Your task to perform on an android device: manage bookmarks in the chrome app Image 0: 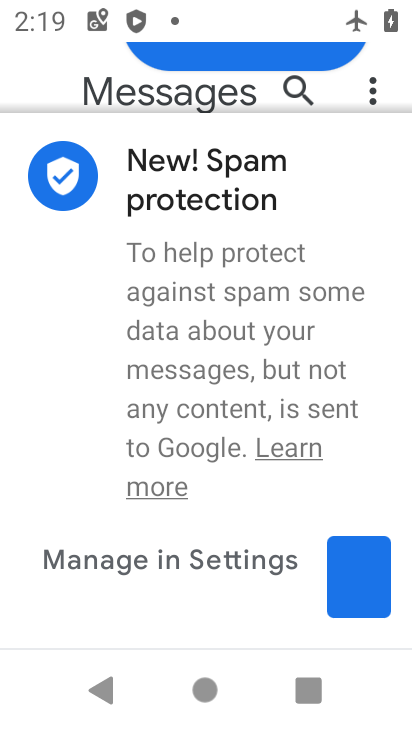
Step 0: press home button
Your task to perform on an android device: manage bookmarks in the chrome app Image 1: 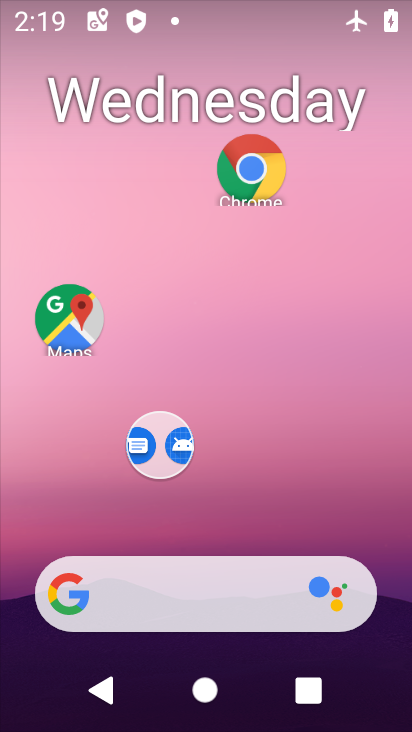
Step 1: click (226, 168)
Your task to perform on an android device: manage bookmarks in the chrome app Image 2: 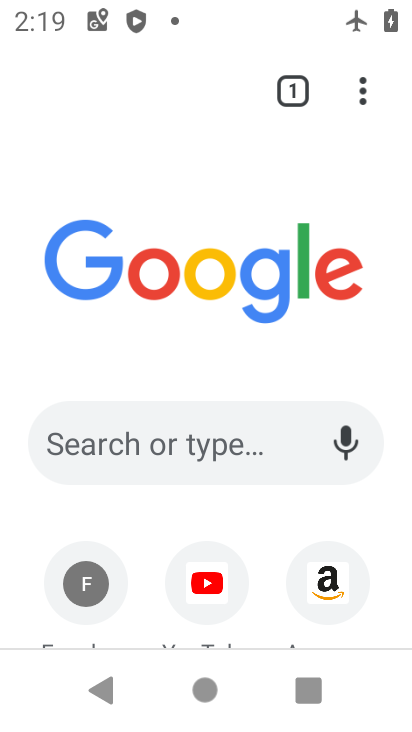
Step 2: click (359, 94)
Your task to perform on an android device: manage bookmarks in the chrome app Image 3: 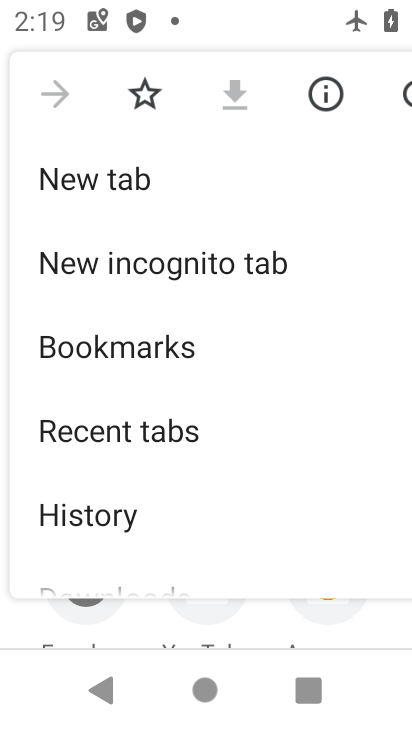
Step 3: click (148, 330)
Your task to perform on an android device: manage bookmarks in the chrome app Image 4: 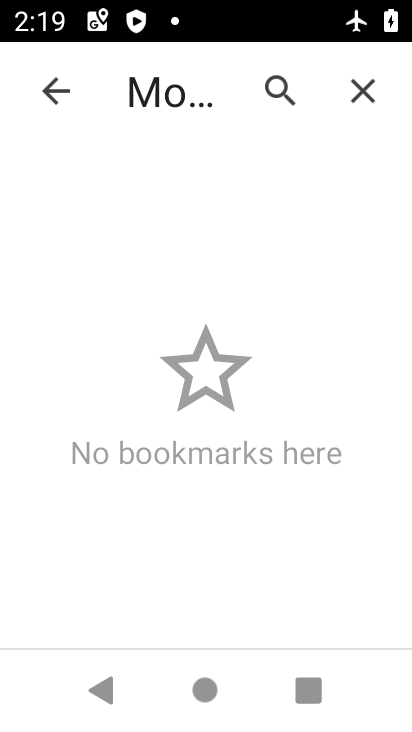
Step 4: task complete